Your task to perform on an android device: move a message to another label in the gmail app Image 0: 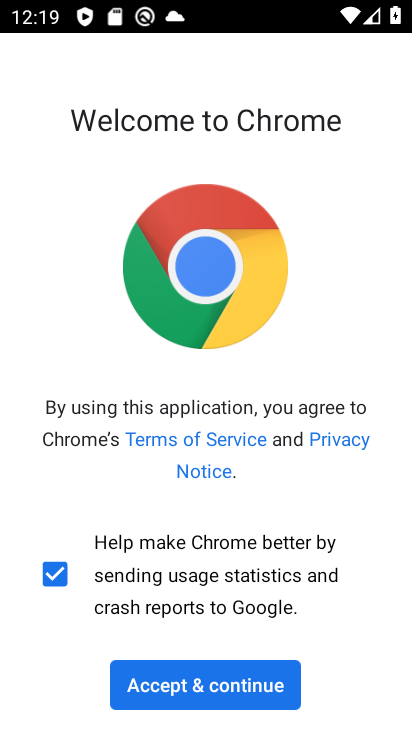
Step 0: press home button
Your task to perform on an android device: move a message to another label in the gmail app Image 1: 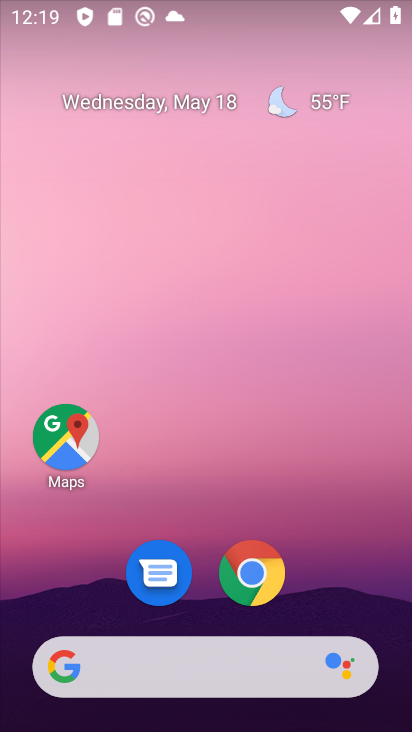
Step 1: drag from (367, 595) to (366, 117)
Your task to perform on an android device: move a message to another label in the gmail app Image 2: 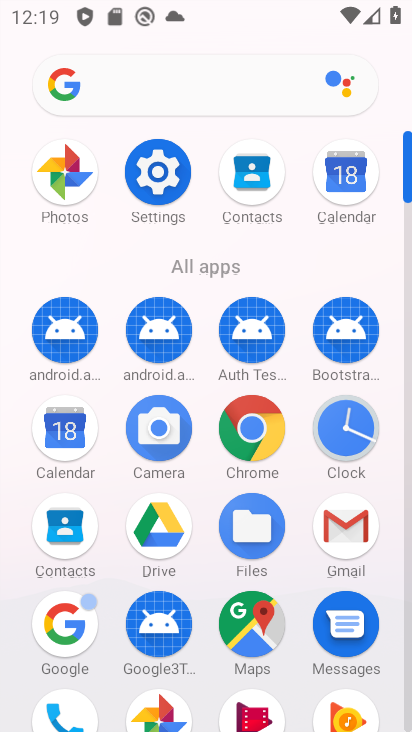
Step 2: click (354, 530)
Your task to perform on an android device: move a message to another label in the gmail app Image 3: 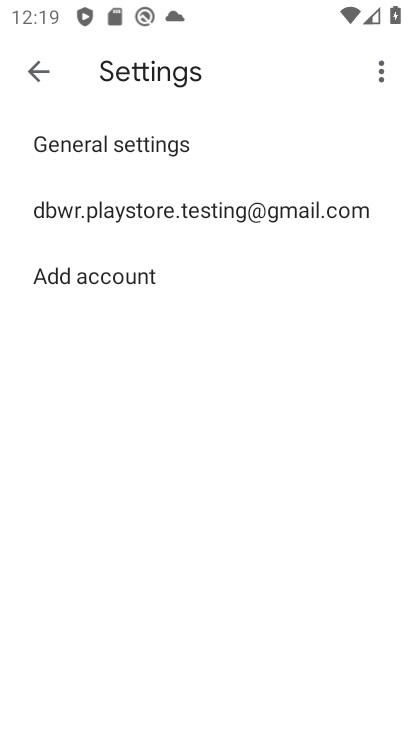
Step 3: click (38, 84)
Your task to perform on an android device: move a message to another label in the gmail app Image 4: 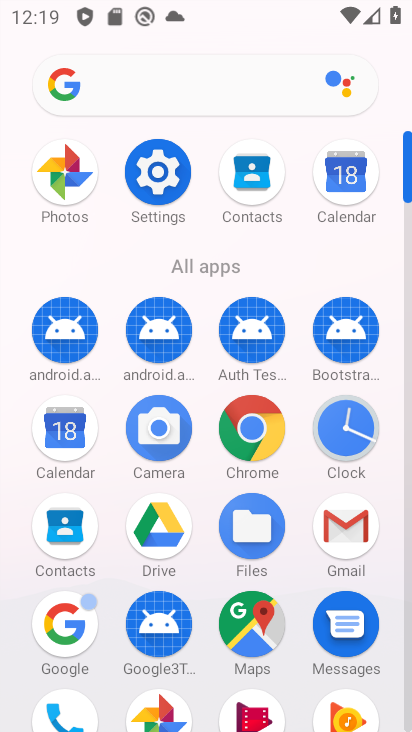
Step 4: click (331, 540)
Your task to perform on an android device: move a message to another label in the gmail app Image 5: 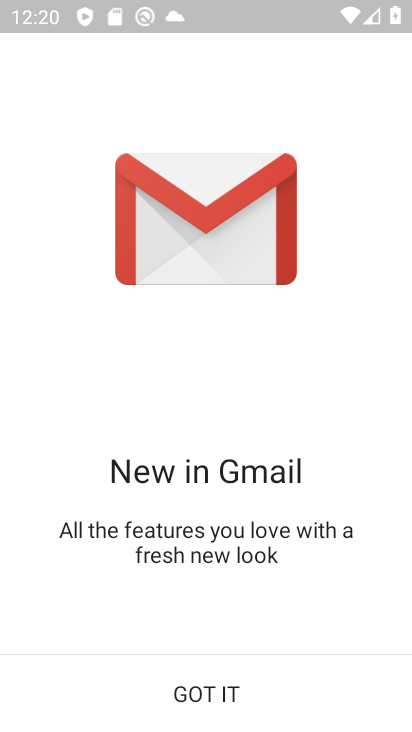
Step 5: click (258, 703)
Your task to perform on an android device: move a message to another label in the gmail app Image 6: 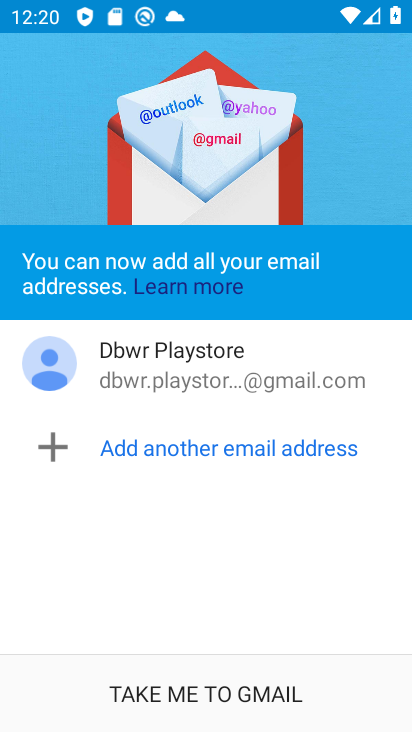
Step 6: click (258, 703)
Your task to perform on an android device: move a message to another label in the gmail app Image 7: 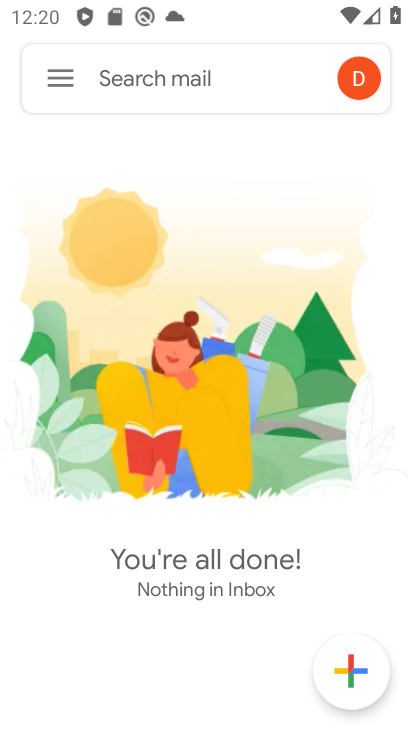
Step 7: click (51, 68)
Your task to perform on an android device: move a message to another label in the gmail app Image 8: 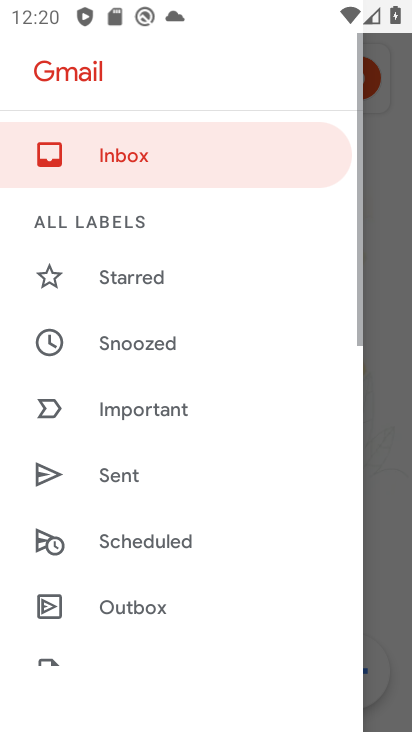
Step 8: drag from (262, 573) to (272, 406)
Your task to perform on an android device: move a message to another label in the gmail app Image 9: 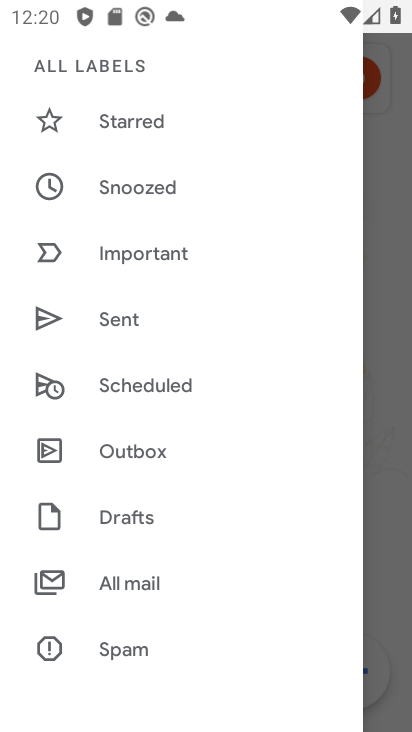
Step 9: drag from (270, 612) to (268, 409)
Your task to perform on an android device: move a message to another label in the gmail app Image 10: 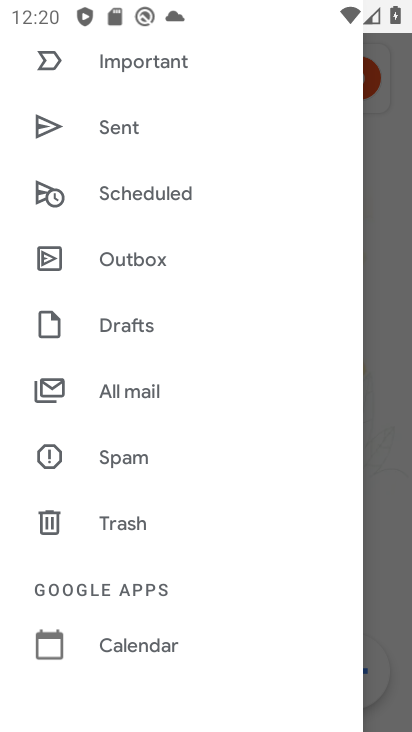
Step 10: drag from (304, 572) to (314, 360)
Your task to perform on an android device: move a message to another label in the gmail app Image 11: 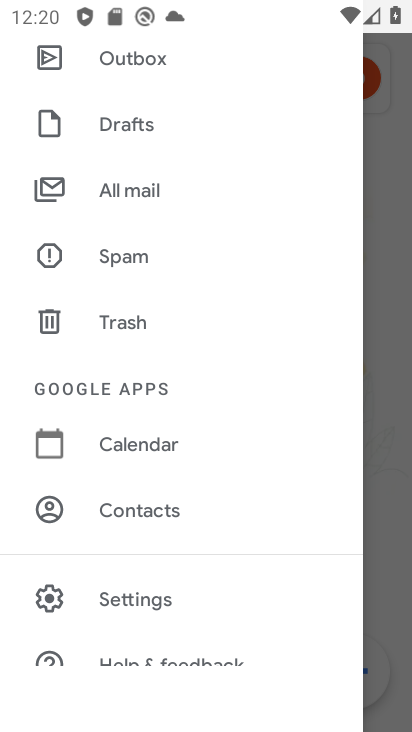
Step 11: drag from (332, 425) to (366, 293)
Your task to perform on an android device: move a message to another label in the gmail app Image 12: 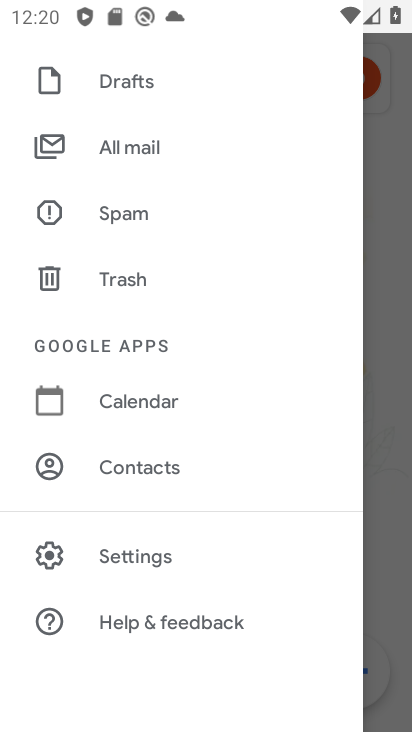
Step 12: drag from (274, 209) to (262, 406)
Your task to perform on an android device: move a message to another label in the gmail app Image 13: 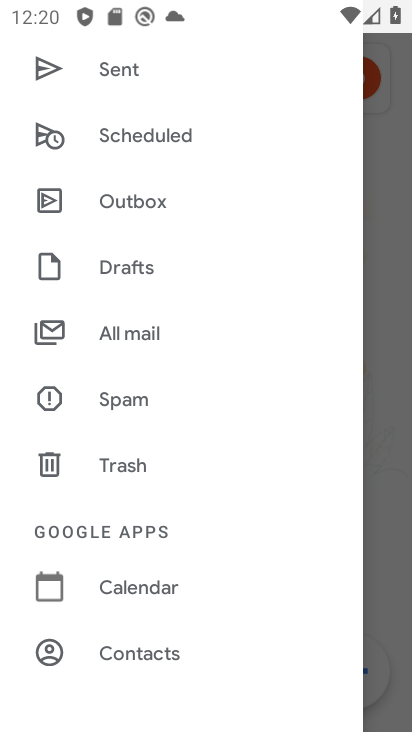
Step 13: drag from (273, 239) to (261, 459)
Your task to perform on an android device: move a message to another label in the gmail app Image 14: 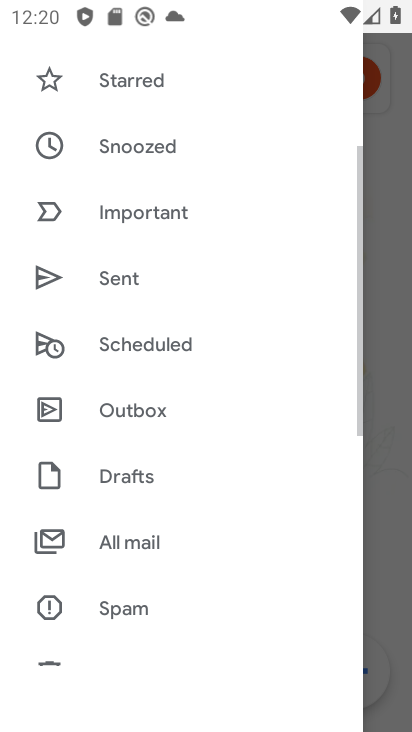
Step 14: drag from (274, 171) to (263, 438)
Your task to perform on an android device: move a message to another label in the gmail app Image 15: 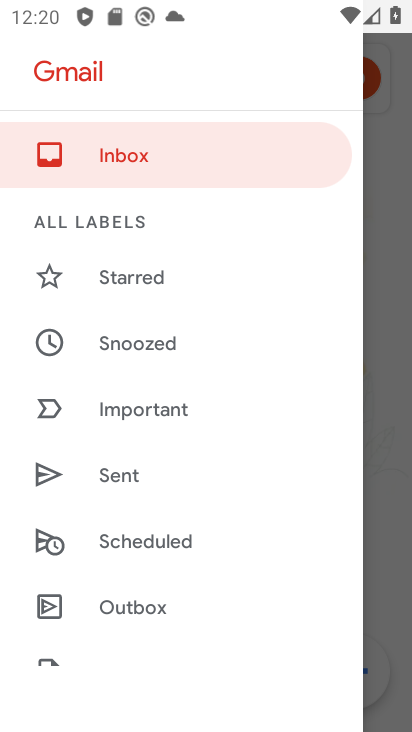
Step 15: click (216, 163)
Your task to perform on an android device: move a message to another label in the gmail app Image 16: 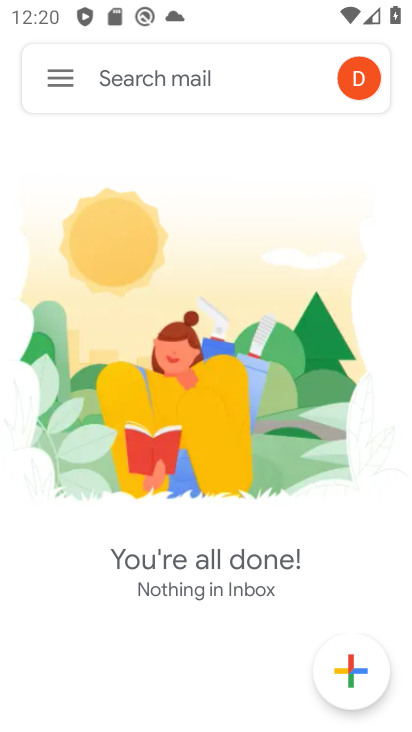
Step 16: task complete